Your task to perform on an android device: Turn on the flashlight Image 0: 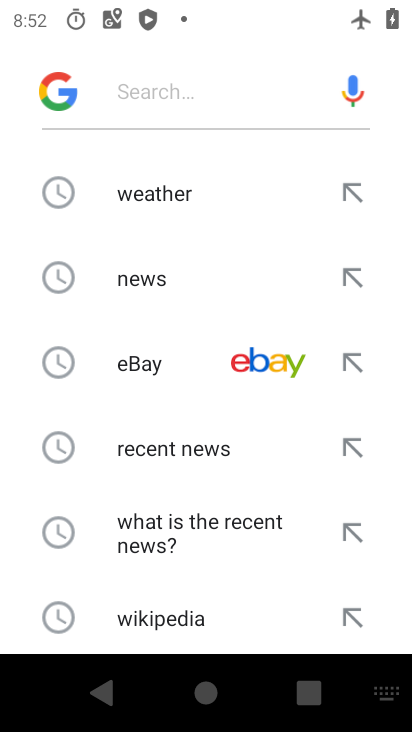
Step 0: press home button
Your task to perform on an android device: Turn on the flashlight Image 1: 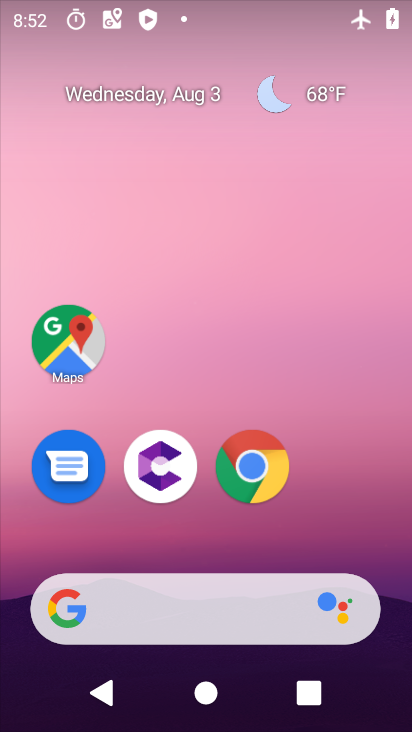
Step 1: drag from (313, 509) to (359, 43)
Your task to perform on an android device: Turn on the flashlight Image 2: 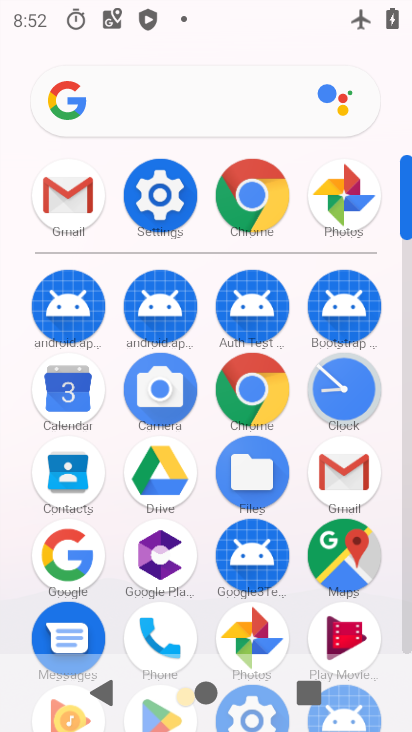
Step 2: click (159, 165)
Your task to perform on an android device: Turn on the flashlight Image 3: 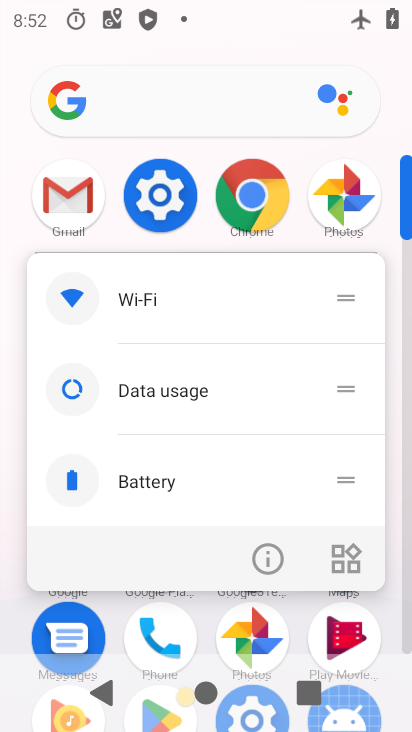
Step 3: click (150, 187)
Your task to perform on an android device: Turn on the flashlight Image 4: 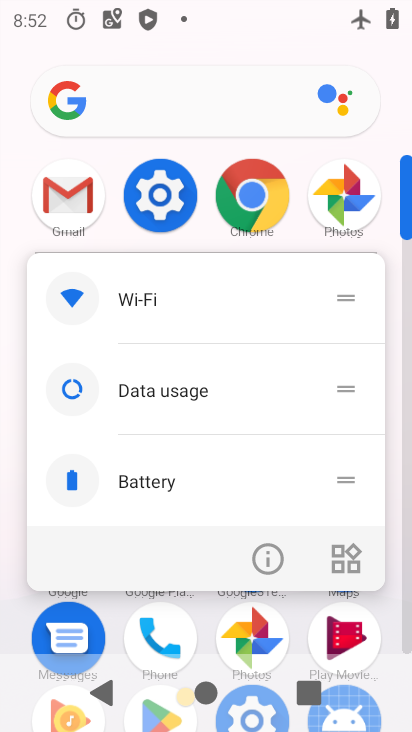
Step 4: click (379, 227)
Your task to perform on an android device: Turn on the flashlight Image 5: 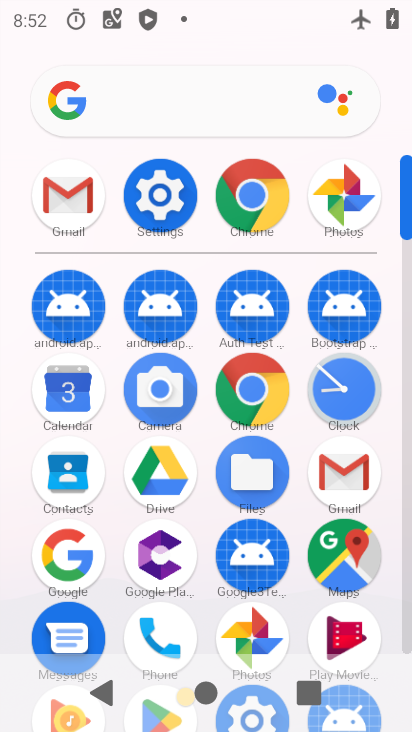
Step 5: drag from (294, 604) to (288, 325)
Your task to perform on an android device: Turn on the flashlight Image 6: 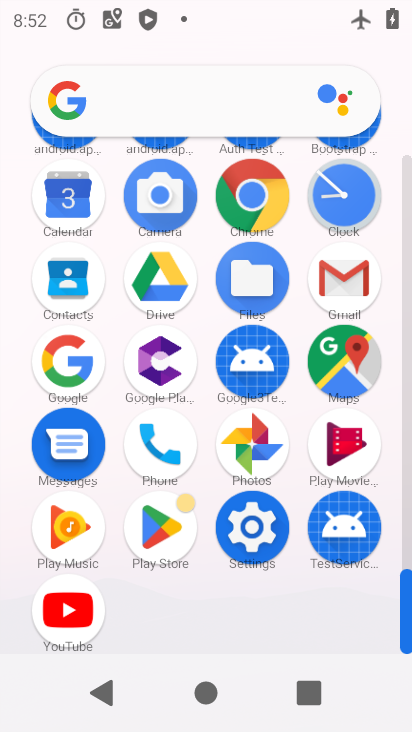
Step 6: click (241, 531)
Your task to perform on an android device: Turn on the flashlight Image 7: 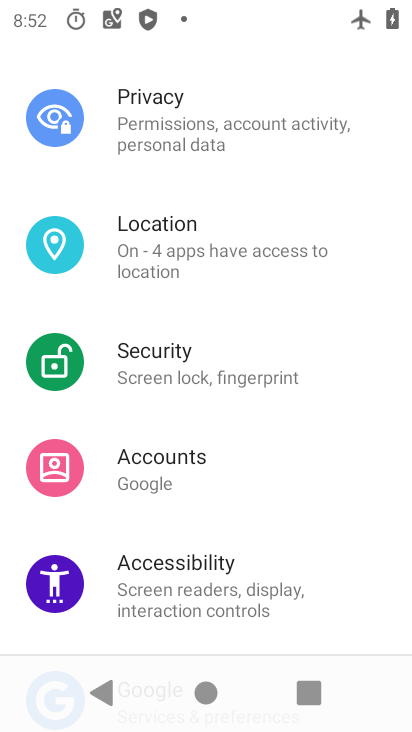
Step 7: drag from (256, 116) to (197, 506)
Your task to perform on an android device: Turn on the flashlight Image 8: 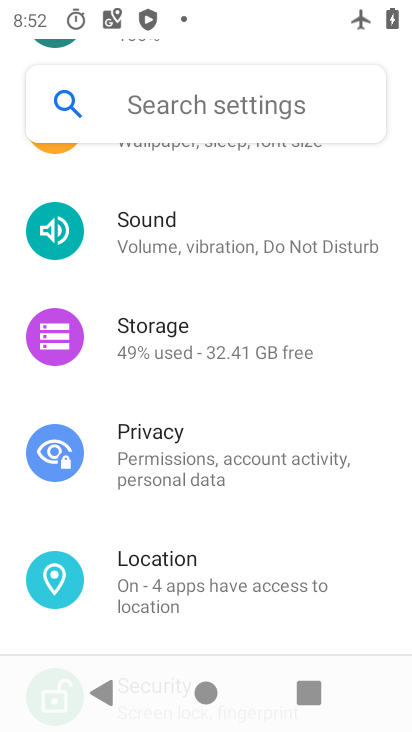
Step 8: drag from (223, 188) to (201, 429)
Your task to perform on an android device: Turn on the flashlight Image 9: 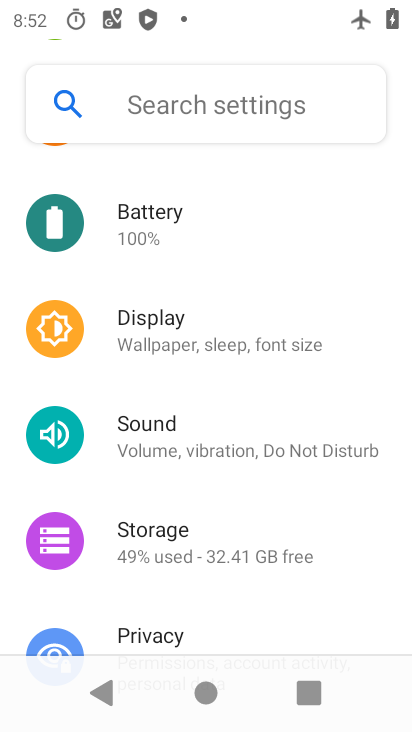
Step 9: click (179, 336)
Your task to perform on an android device: Turn on the flashlight Image 10: 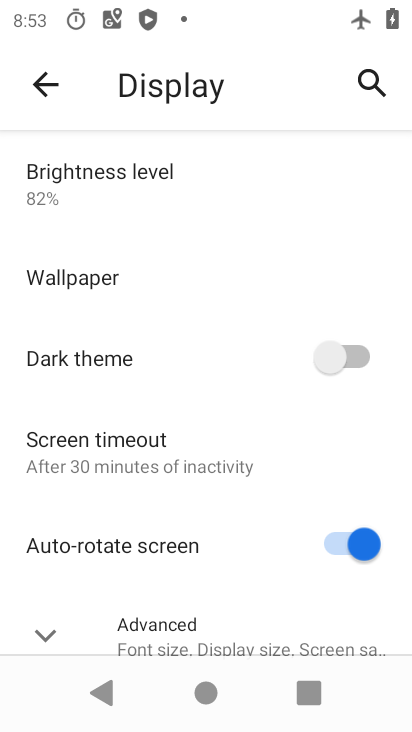
Step 10: click (183, 478)
Your task to perform on an android device: Turn on the flashlight Image 11: 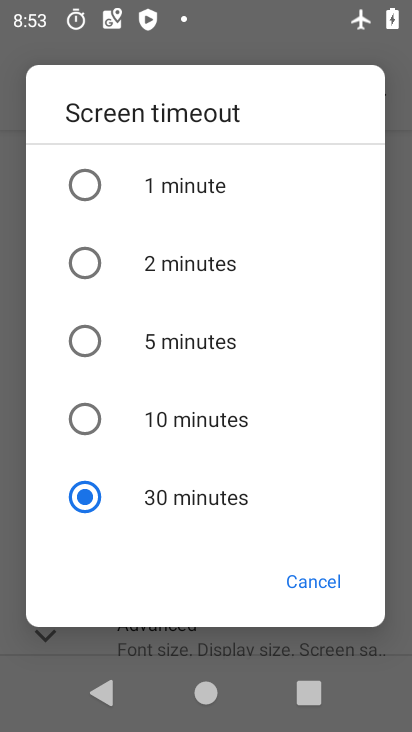
Step 11: task complete